Your task to perform on an android device: change the clock display to digital Image 0: 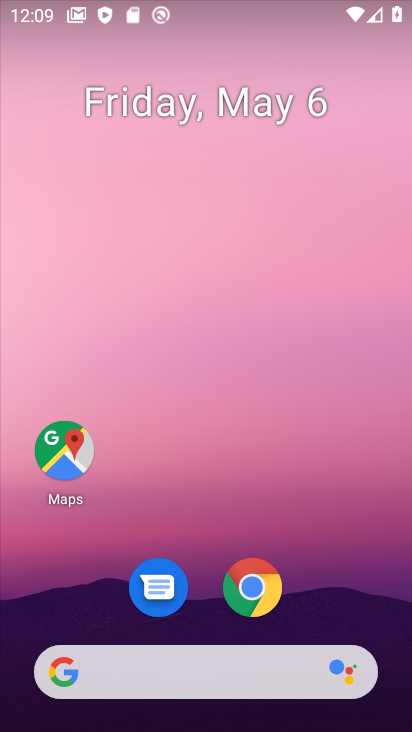
Step 0: drag from (51, 727) to (162, 191)
Your task to perform on an android device: change the clock display to digital Image 1: 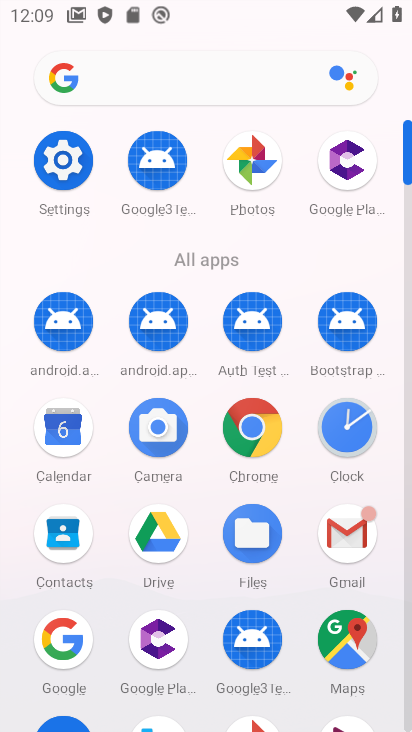
Step 1: click (351, 427)
Your task to perform on an android device: change the clock display to digital Image 2: 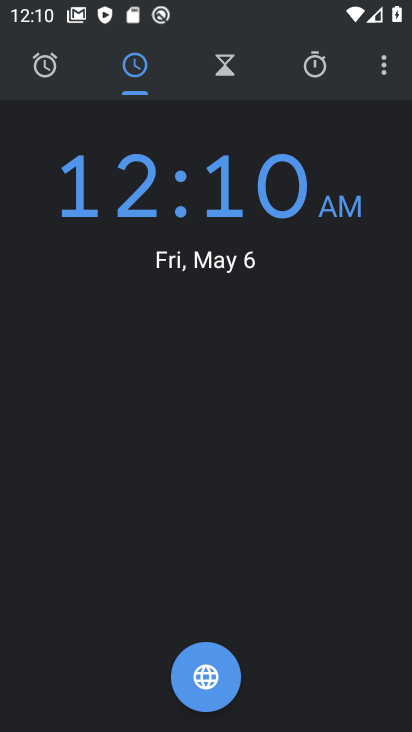
Step 2: click (380, 62)
Your task to perform on an android device: change the clock display to digital Image 3: 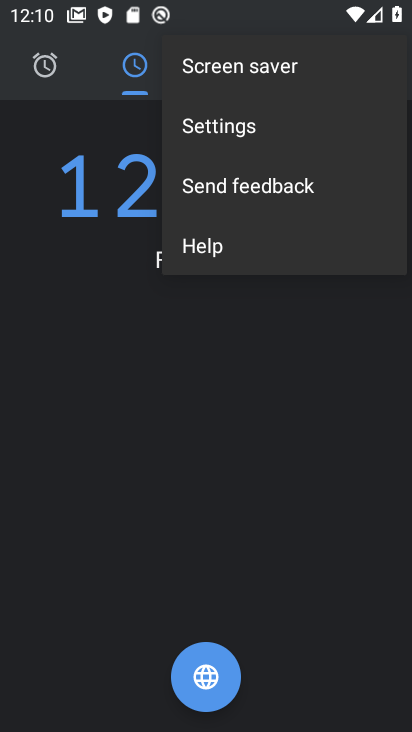
Step 3: click (220, 113)
Your task to perform on an android device: change the clock display to digital Image 4: 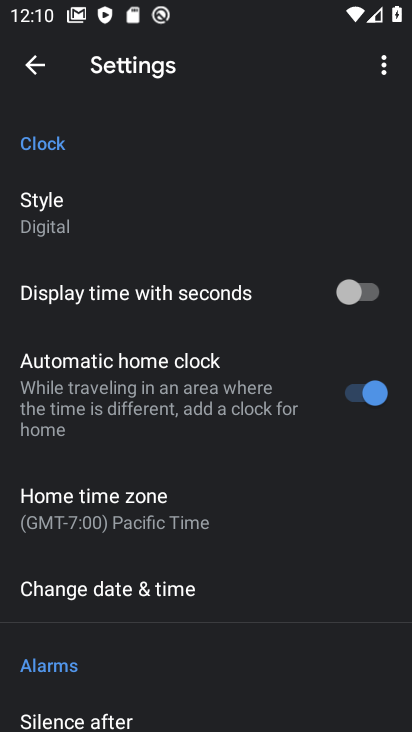
Step 4: click (89, 222)
Your task to perform on an android device: change the clock display to digital Image 5: 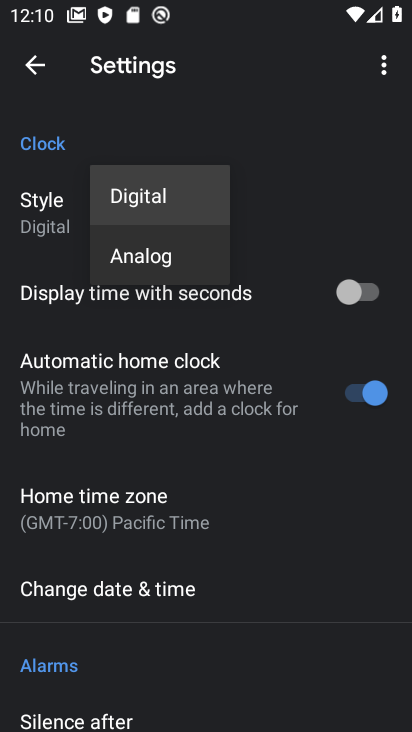
Step 5: click (126, 210)
Your task to perform on an android device: change the clock display to digital Image 6: 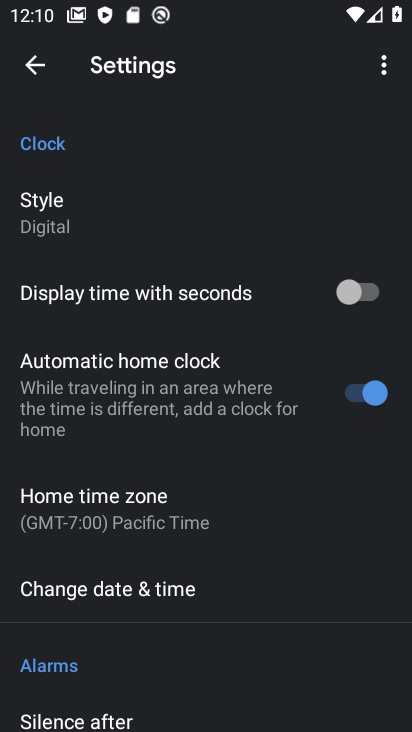
Step 6: task complete